Your task to perform on an android device: open device folders in google photos Image 0: 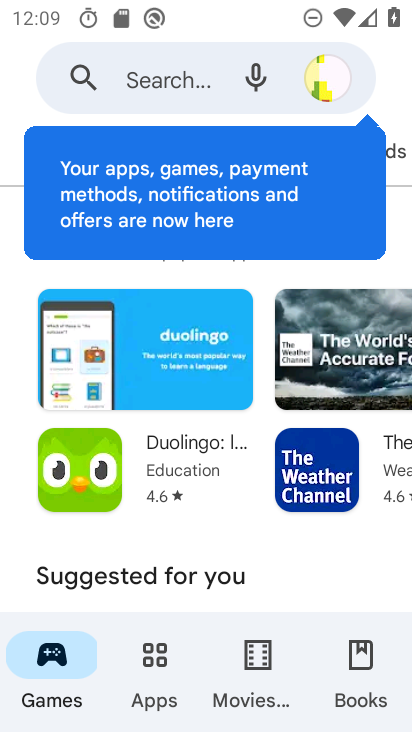
Step 0: press home button
Your task to perform on an android device: open device folders in google photos Image 1: 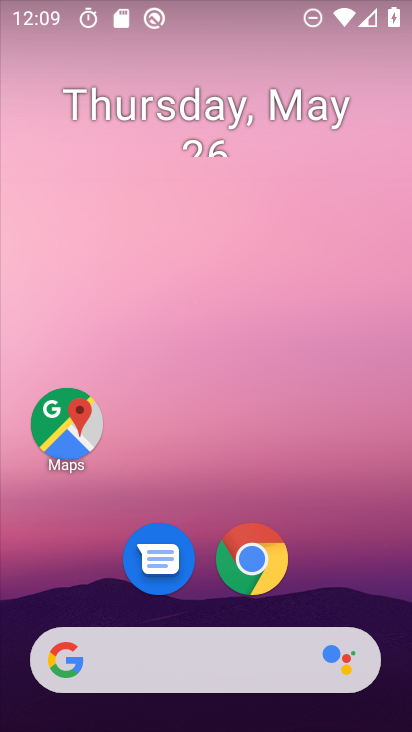
Step 1: drag from (387, 557) to (362, 180)
Your task to perform on an android device: open device folders in google photos Image 2: 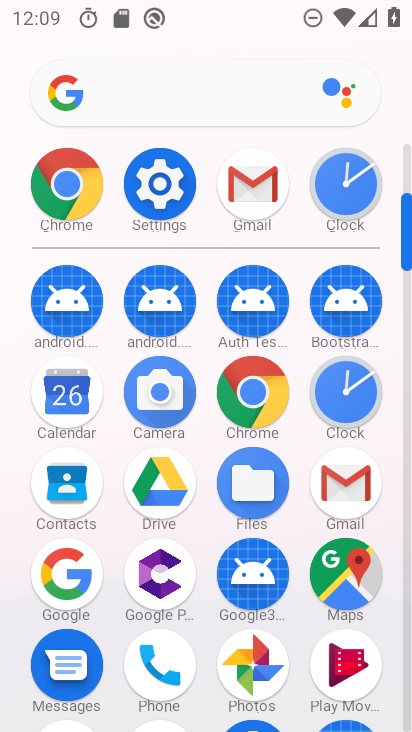
Step 2: click (258, 665)
Your task to perform on an android device: open device folders in google photos Image 3: 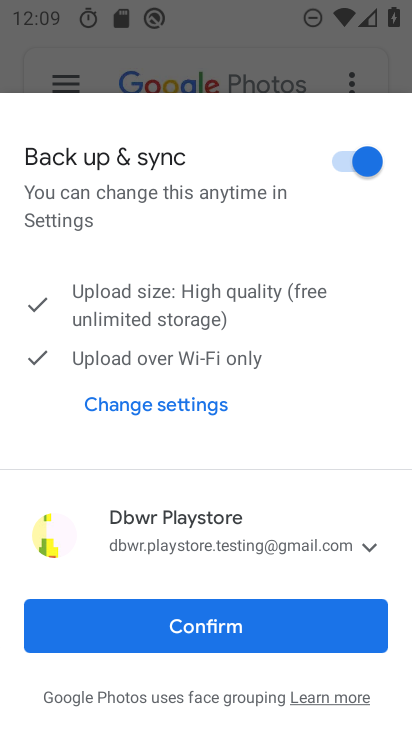
Step 3: click (248, 626)
Your task to perform on an android device: open device folders in google photos Image 4: 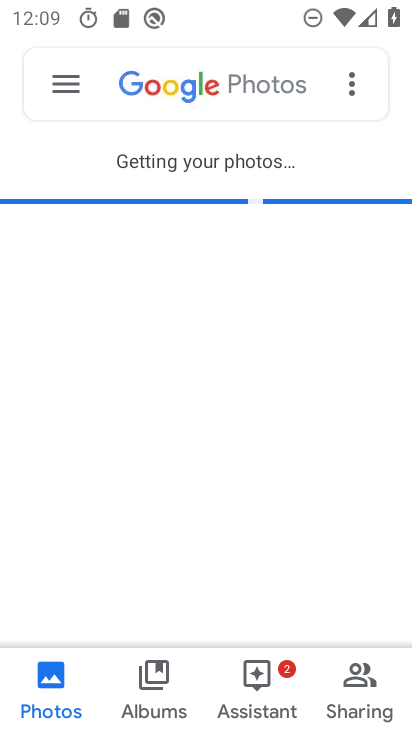
Step 4: click (67, 78)
Your task to perform on an android device: open device folders in google photos Image 5: 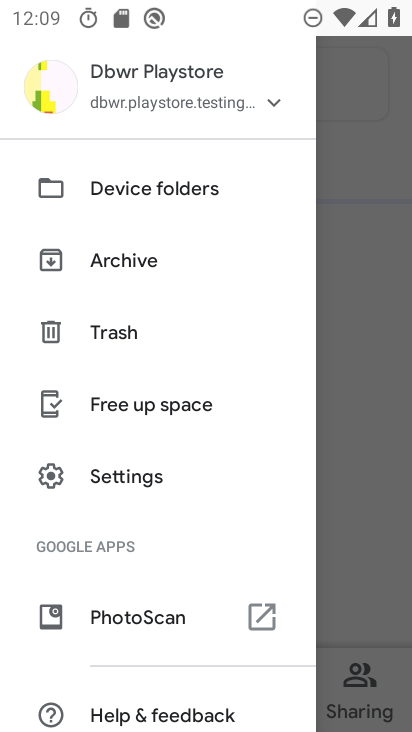
Step 5: click (156, 184)
Your task to perform on an android device: open device folders in google photos Image 6: 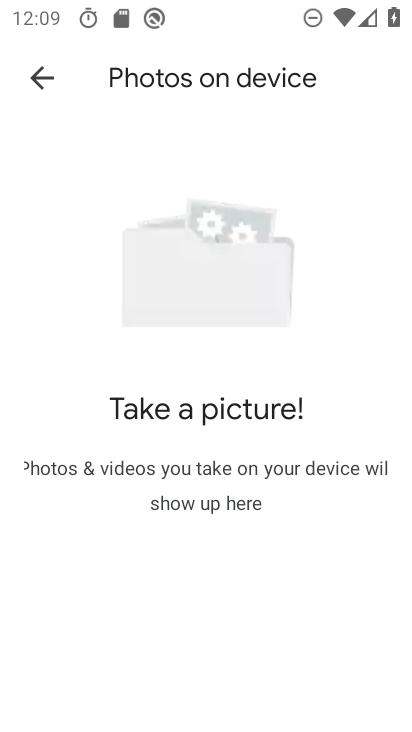
Step 6: task complete